Your task to perform on an android device: Show me the alarms in the clock app Image 0: 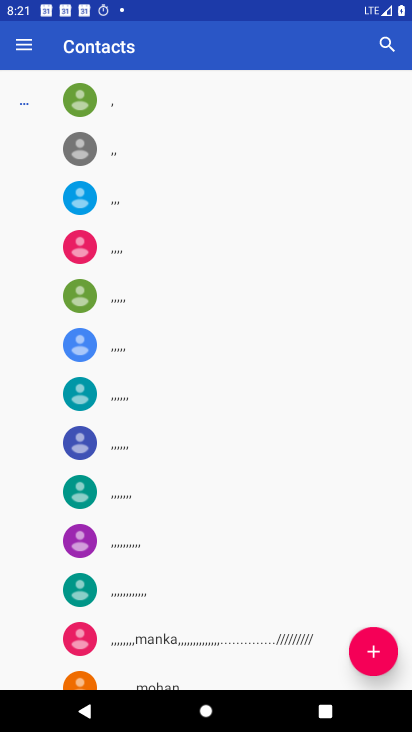
Step 0: press home button
Your task to perform on an android device: Show me the alarms in the clock app Image 1: 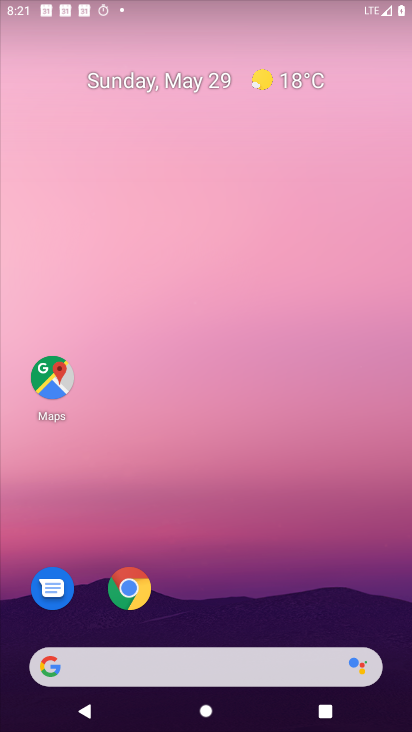
Step 1: drag from (240, 478) to (252, 71)
Your task to perform on an android device: Show me the alarms in the clock app Image 2: 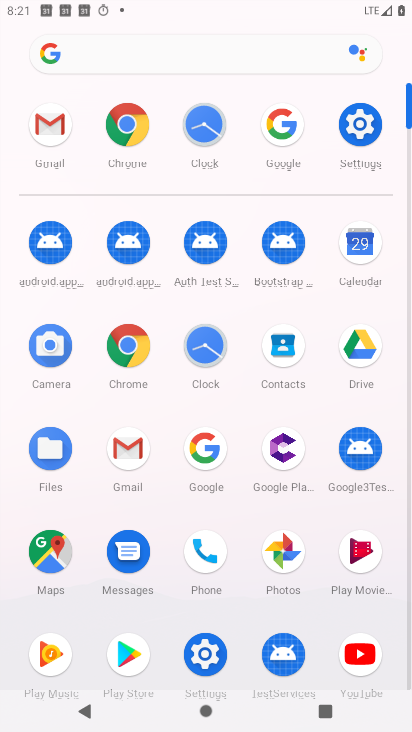
Step 2: click (205, 345)
Your task to perform on an android device: Show me the alarms in the clock app Image 3: 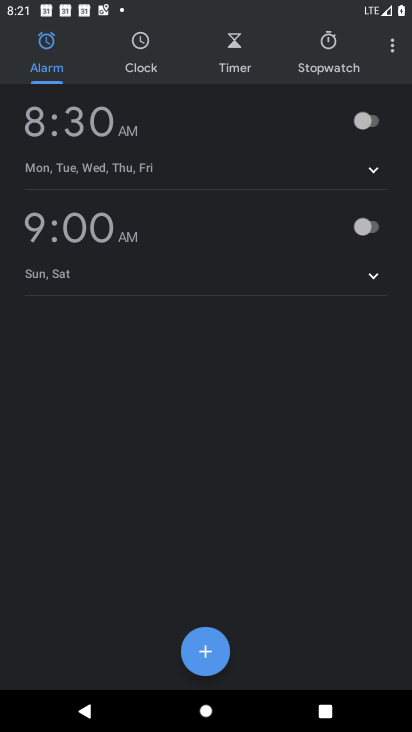
Step 3: click (385, 51)
Your task to perform on an android device: Show me the alarms in the clock app Image 4: 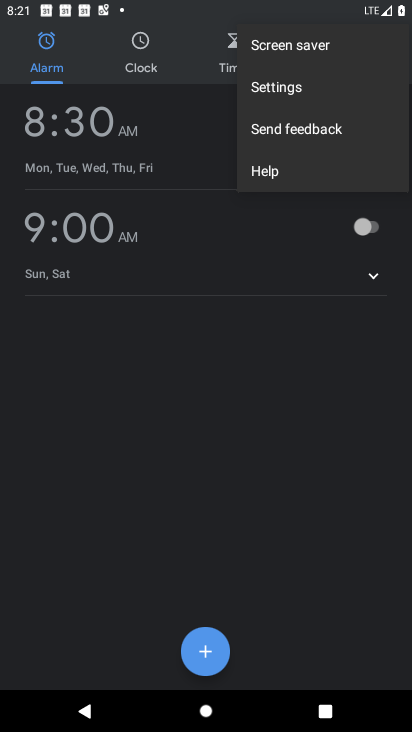
Step 4: click (297, 90)
Your task to perform on an android device: Show me the alarms in the clock app Image 5: 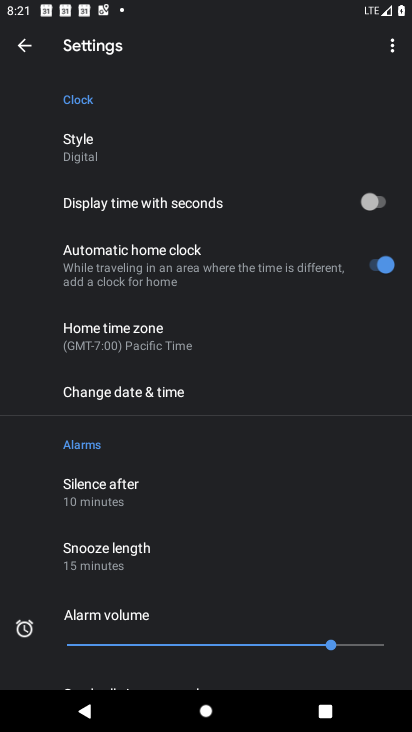
Step 5: task complete